Your task to perform on an android device: Check the settings for the Google Chrome app Image 0: 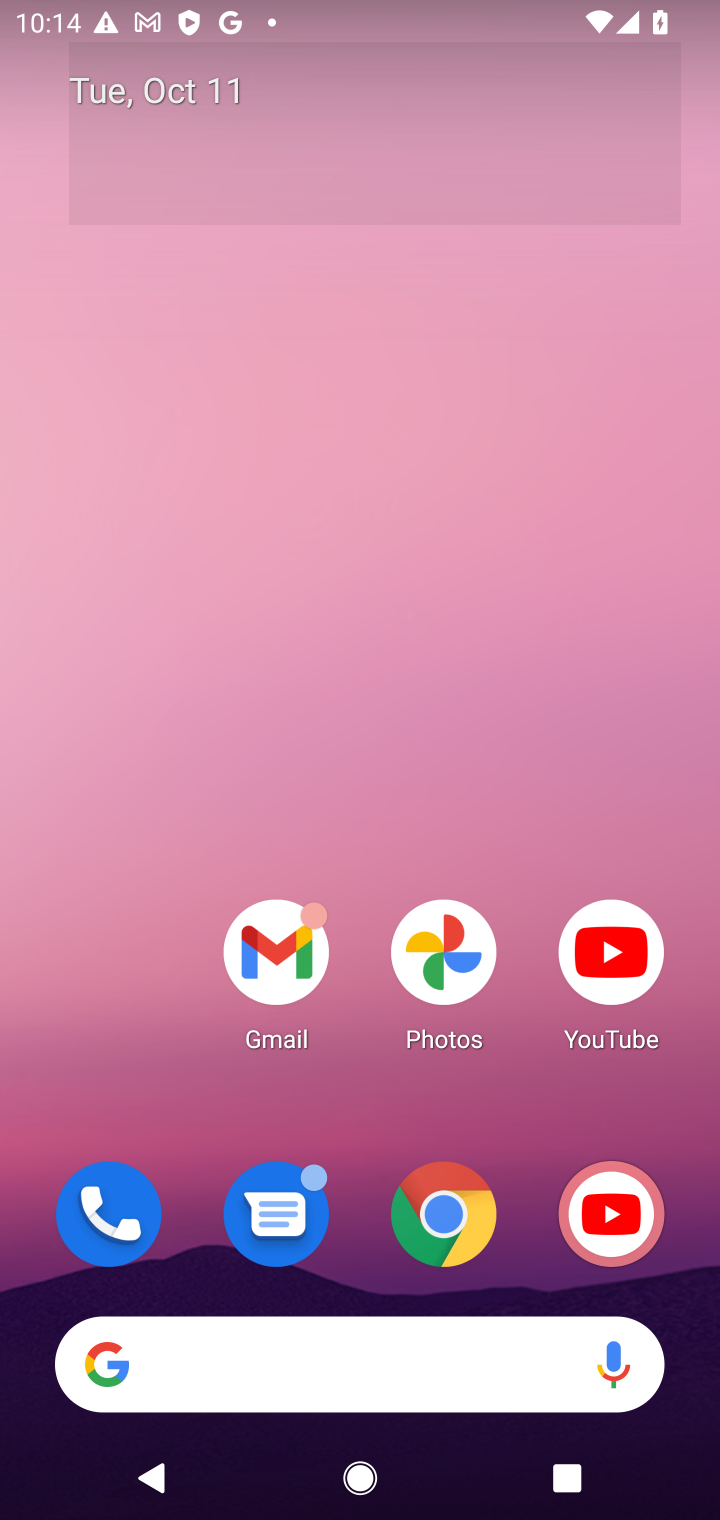
Step 0: drag from (303, 880) to (284, 147)
Your task to perform on an android device: Check the settings for the Google Chrome app Image 1: 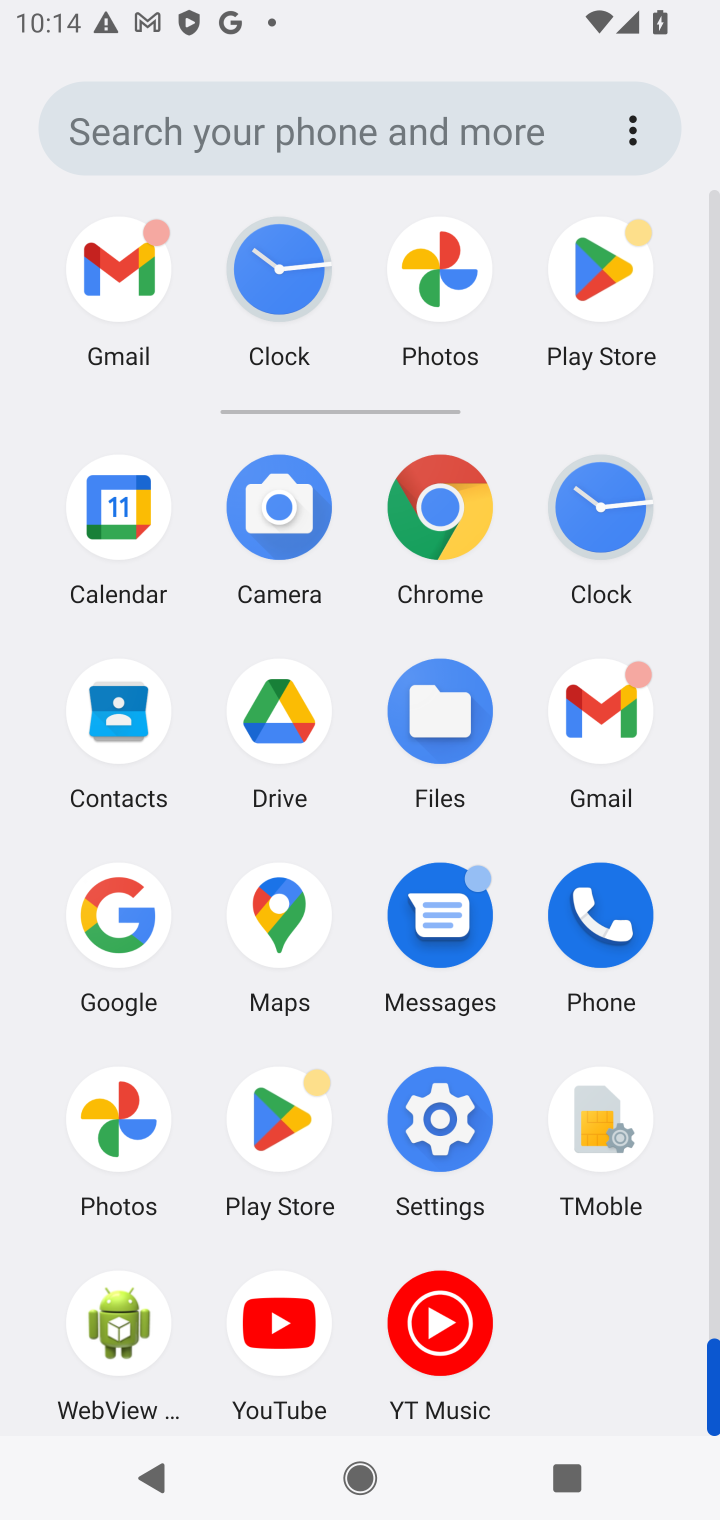
Step 1: click (444, 490)
Your task to perform on an android device: Check the settings for the Google Chrome app Image 2: 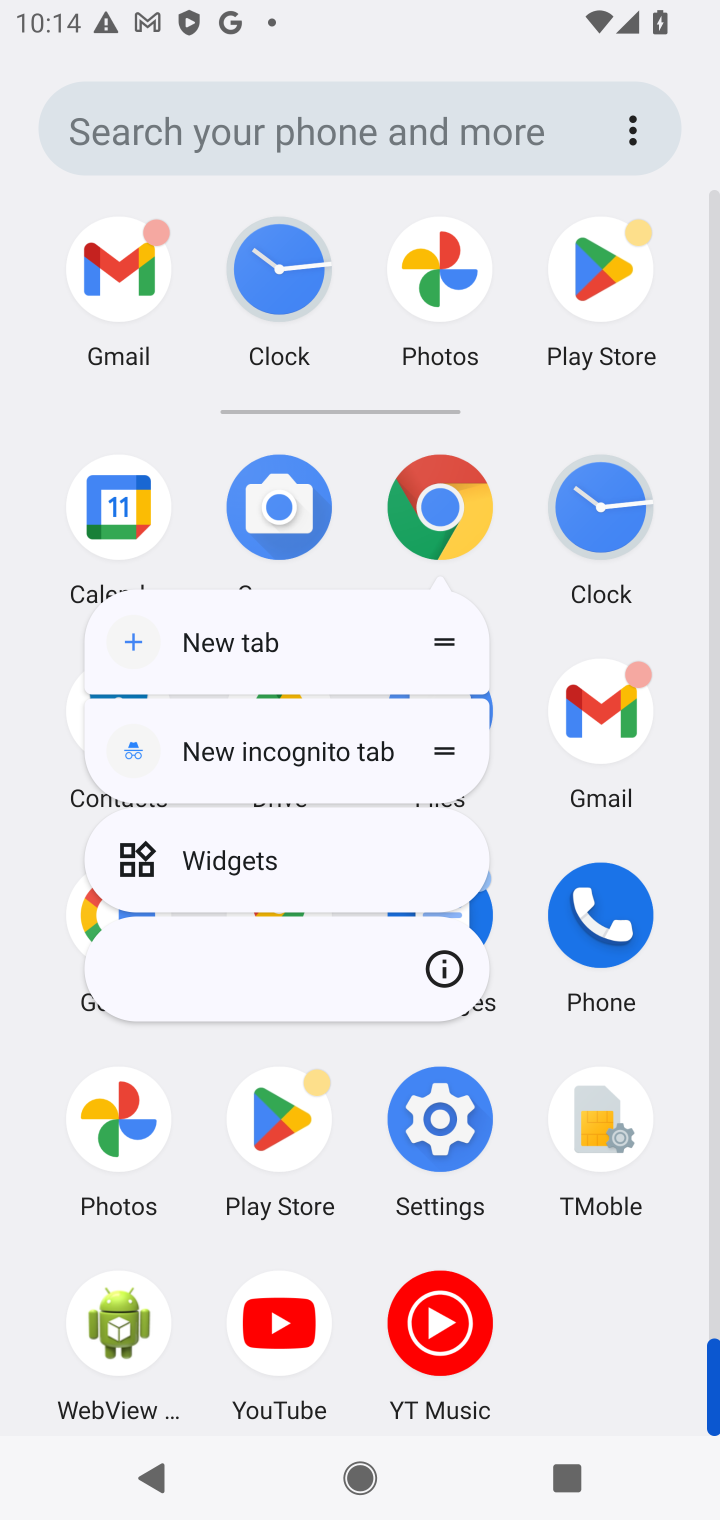
Step 2: click (413, 526)
Your task to perform on an android device: Check the settings for the Google Chrome app Image 3: 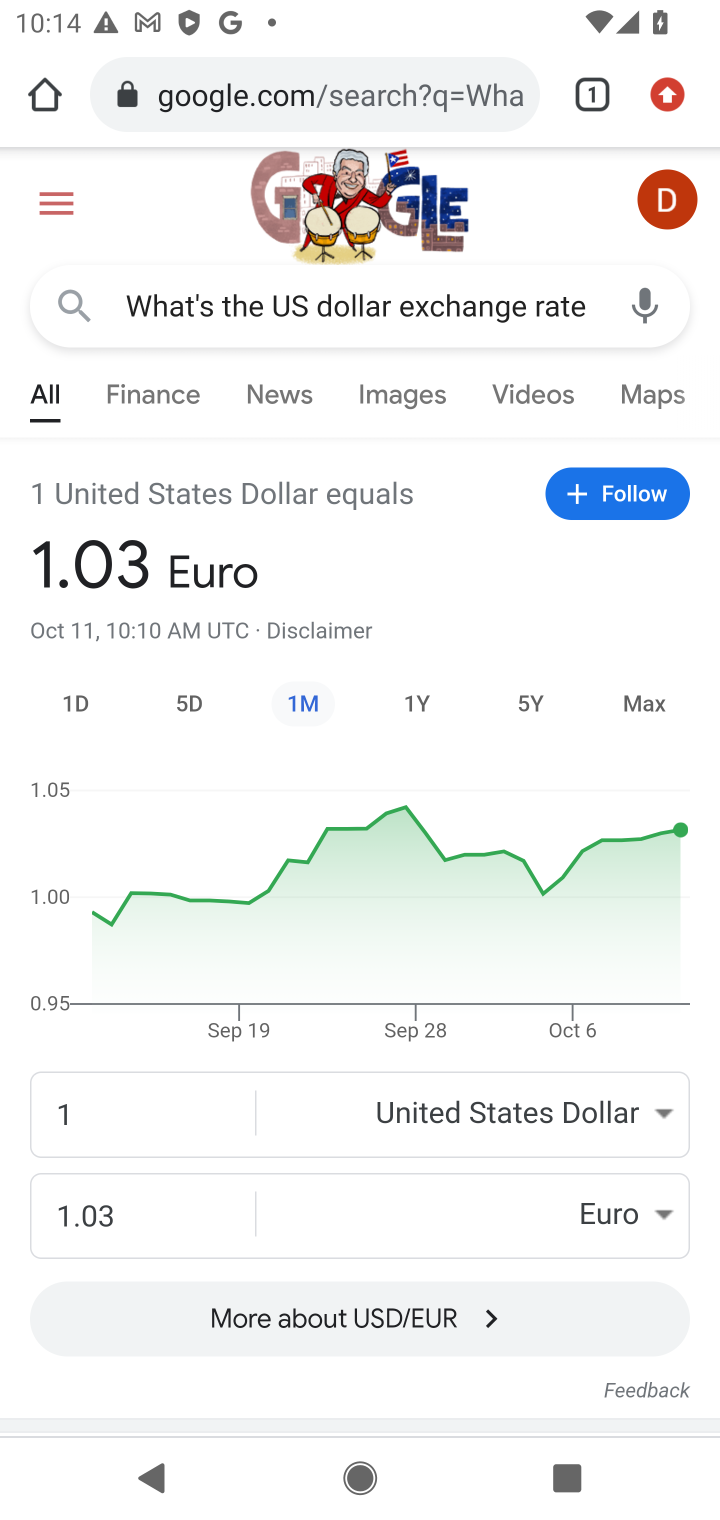
Step 3: task complete